Your task to perform on an android device: open app "PUBG MOBILE" (install if not already installed) Image 0: 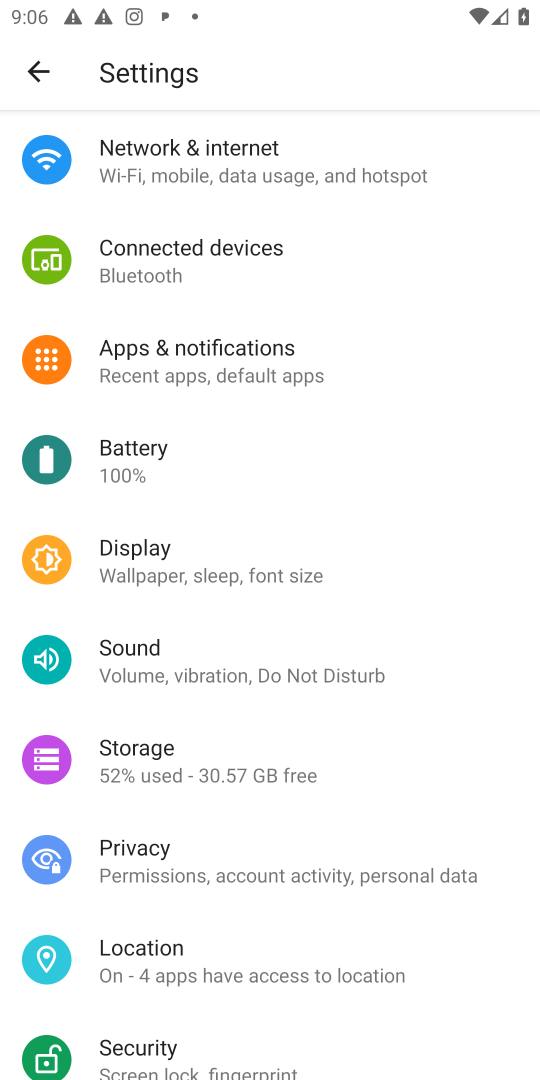
Step 0: press home button
Your task to perform on an android device: open app "PUBG MOBILE" (install if not already installed) Image 1: 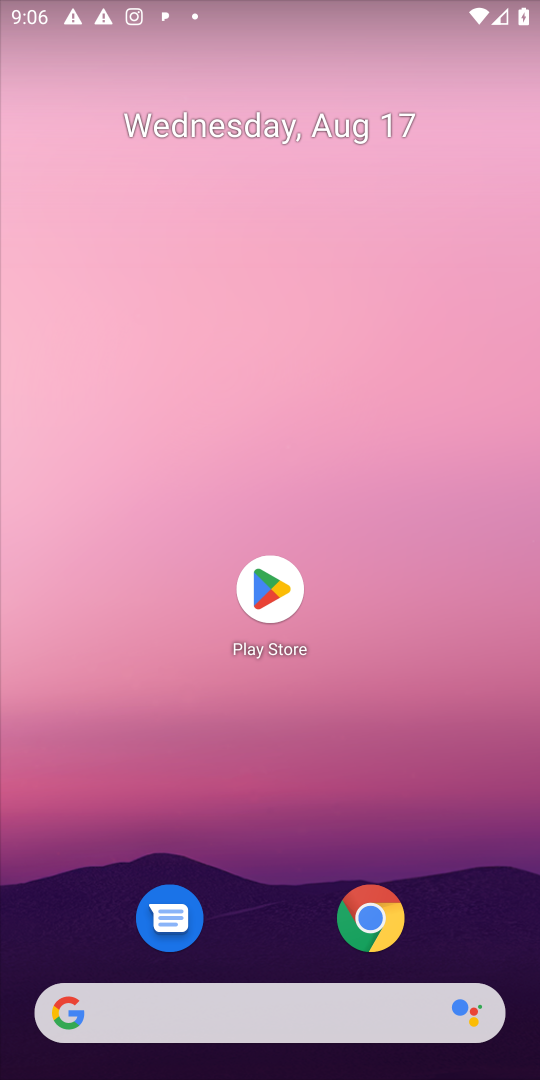
Step 1: click (280, 599)
Your task to perform on an android device: open app "PUBG MOBILE" (install if not already installed) Image 2: 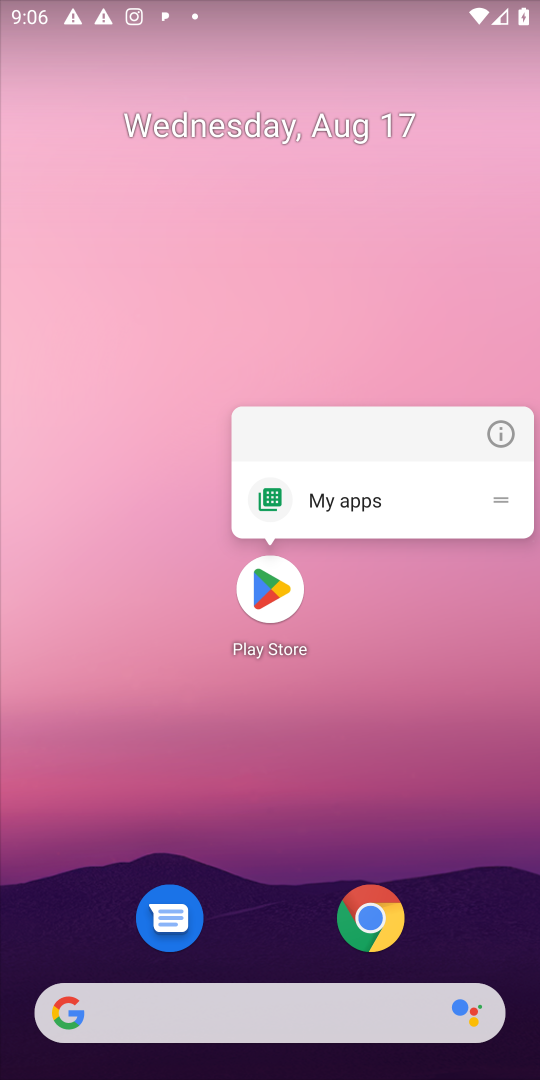
Step 2: click (280, 599)
Your task to perform on an android device: open app "PUBG MOBILE" (install if not already installed) Image 3: 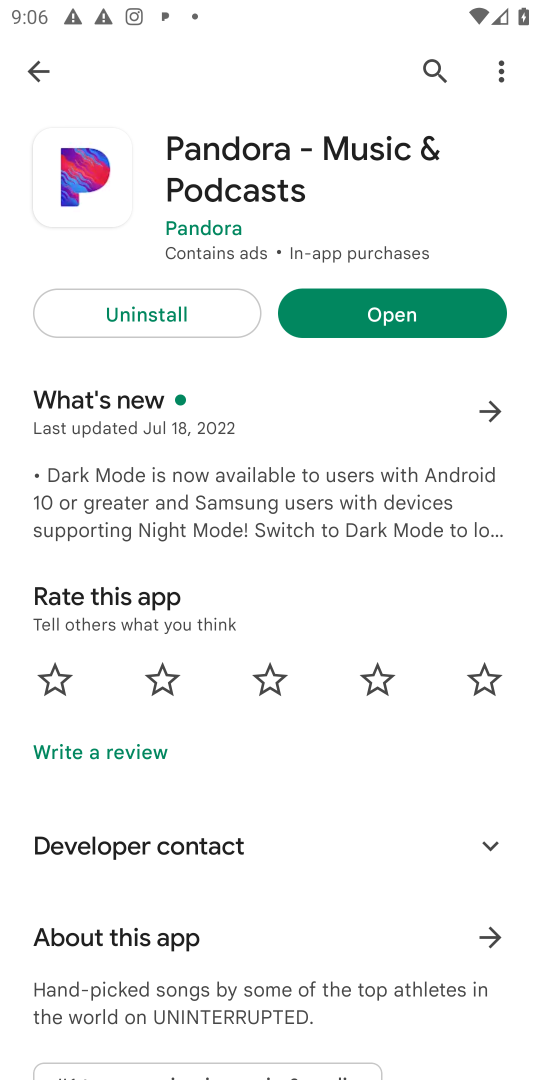
Step 3: click (426, 65)
Your task to perform on an android device: open app "PUBG MOBILE" (install if not already installed) Image 4: 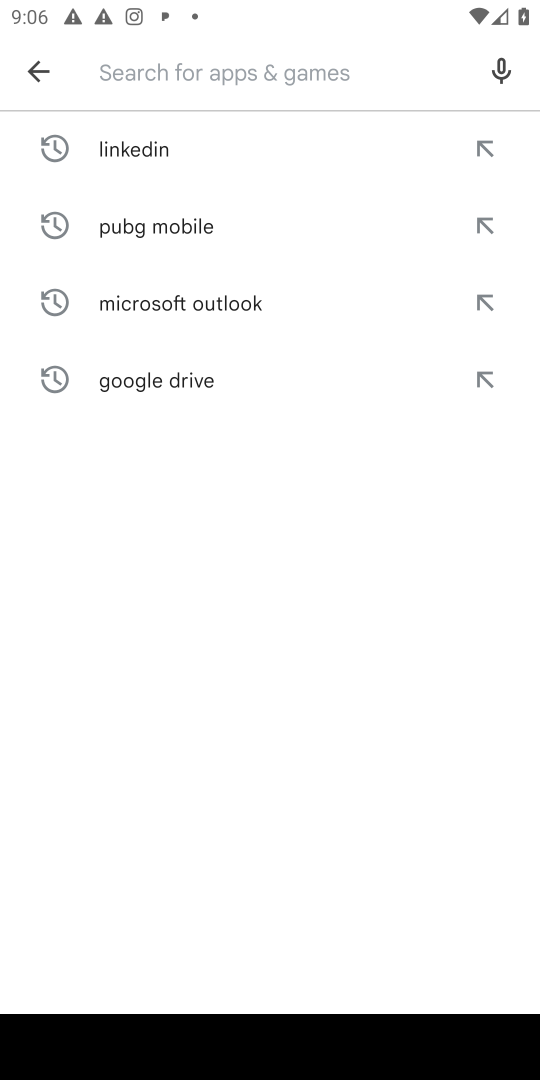
Step 4: type "PUBG MOBILE"
Your task to perform on an android device: open app "PUBG MOBILE" (install if not already installed) Image 5: 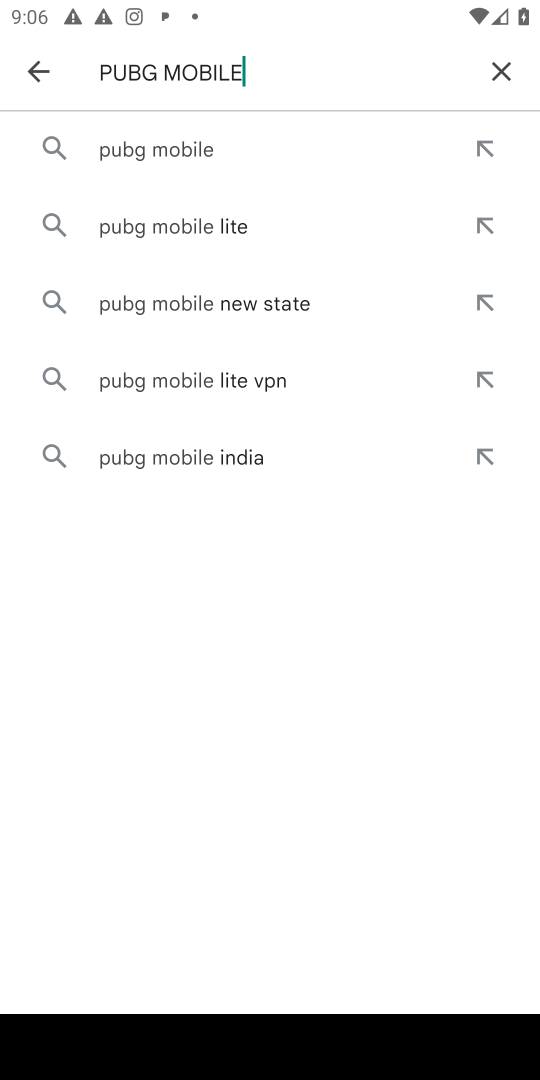
Step 5: click (182, 141)
Your task to perform on an android device: open app "PUBG MOBILE" (install if not already installed) Image 6: 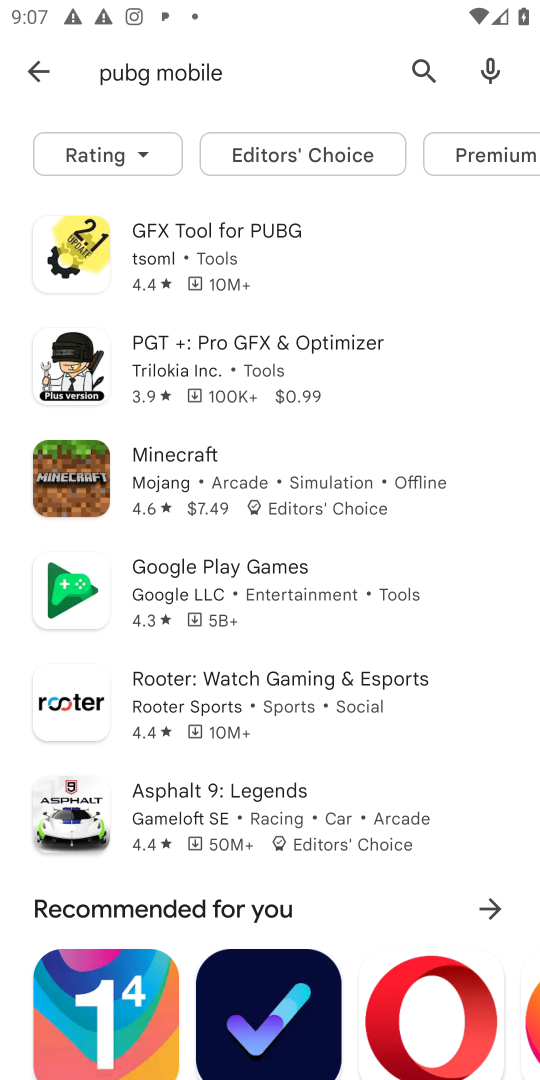
Step 6: task complete